Your task to perform on an android device: change notifications settings Image 0: 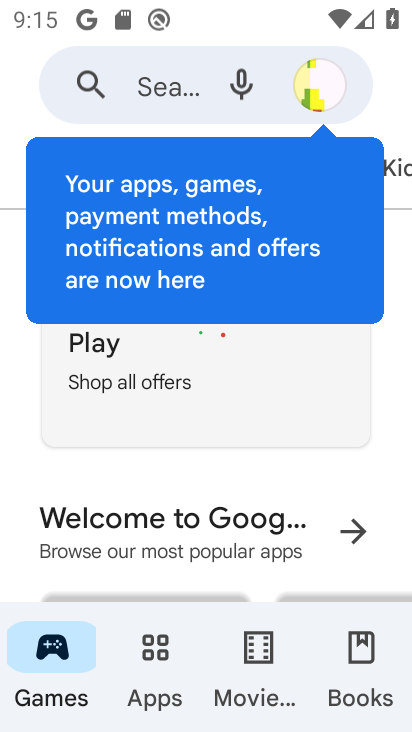
Step 0: press home button
Your task to perform on an android device: change notifications settings Image 1: 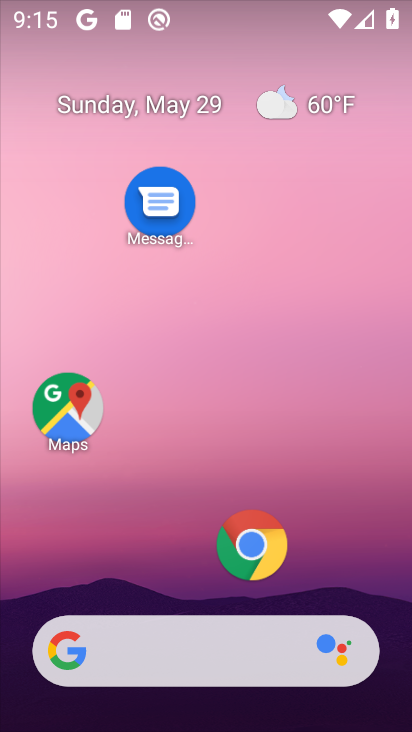
Step 1: drag from (246, 574) to (257, 111)
Your task to perform on an android device: change notifications settings Image 2: 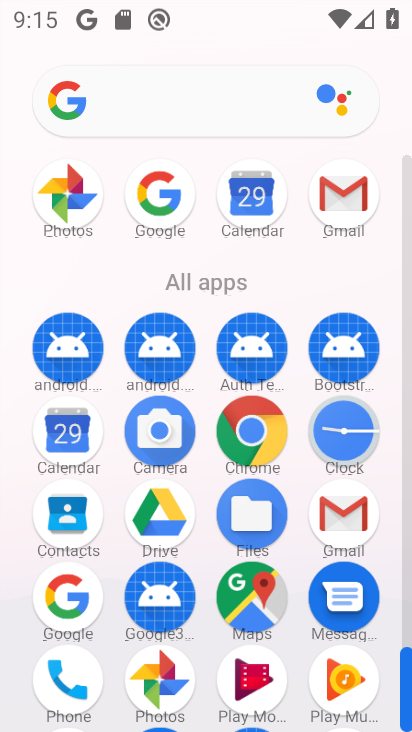
Step 2: drag from (212, 654) to (200, 328)
Your task to perform on an android device: change notifications settings Image 3: 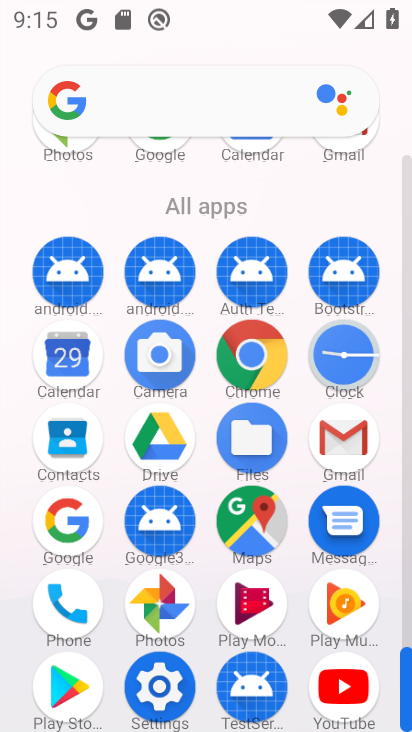
Step 3: click (170, 692)
Your task to perform on an android device: change notifications settings Image 4: 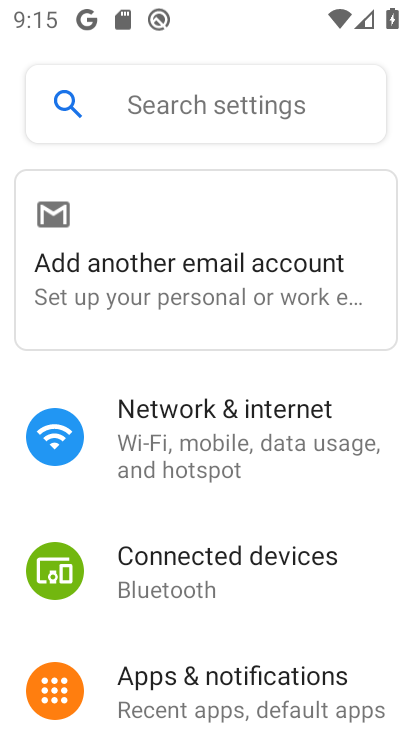
Step 4: click (181, 686)
Your task to perform on an android device: change notifications settings Image 5: 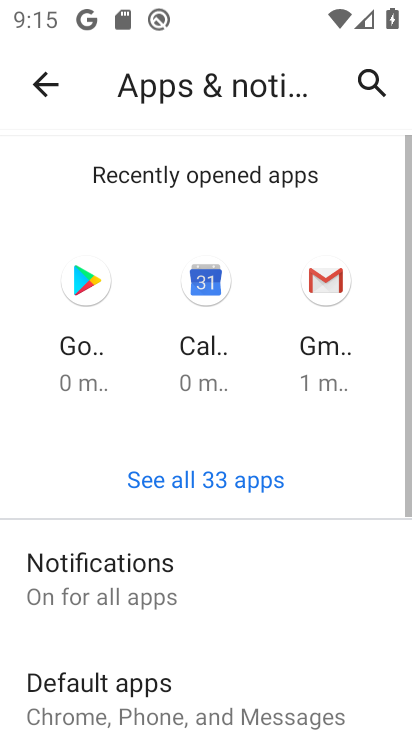
Step 5: click (116, 568)
Your task to perform on an android device: change notifications settings Image 6: 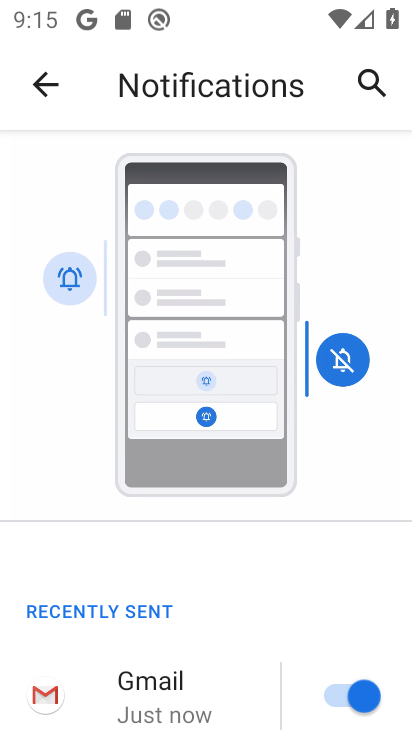
Step 6: drag from (255, 676) to (254, 160)
Your task to perform on an android device: change notifications settings Image 7: 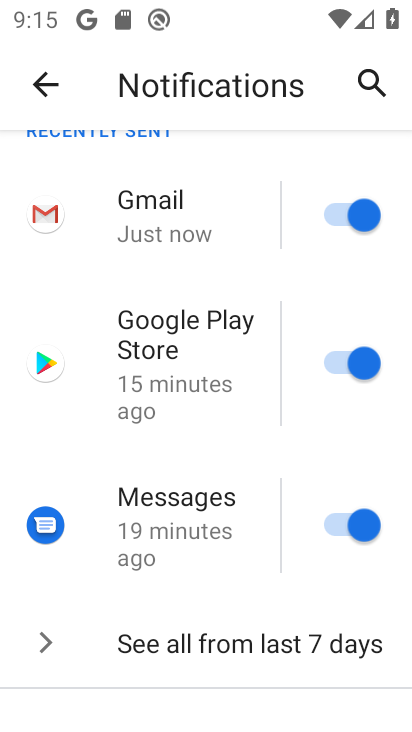
Step 7: click (350, 212)
Your task to perform on an android device: change notifications settings Image 8: 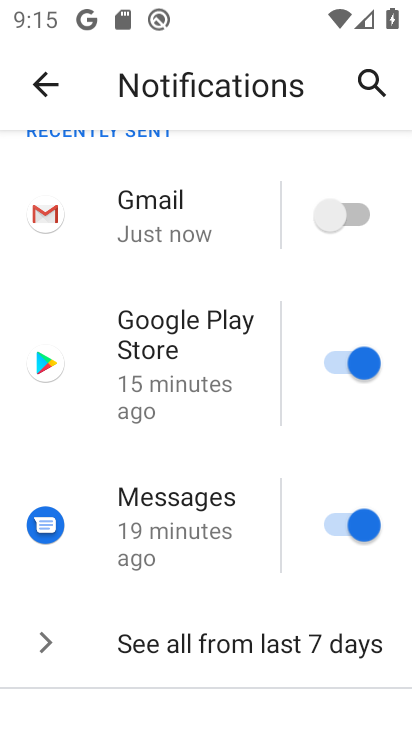
Step 8: click (351, 371)
Your task to perform on an android device: change notifications settings Image 9: 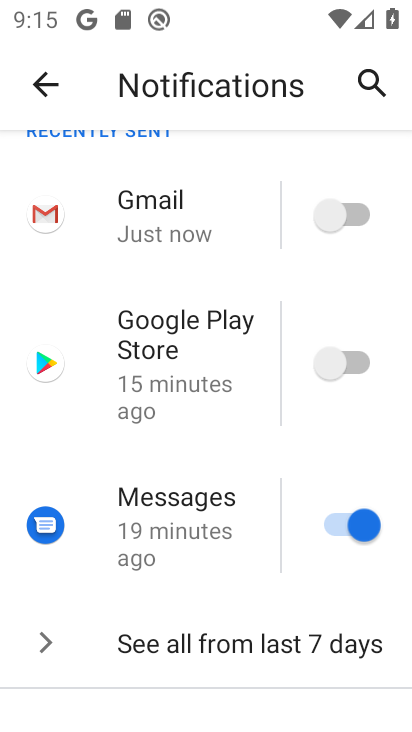
Step 9: click (355, 524)
Your task to perform on an android device: change notifications settings Image 10: 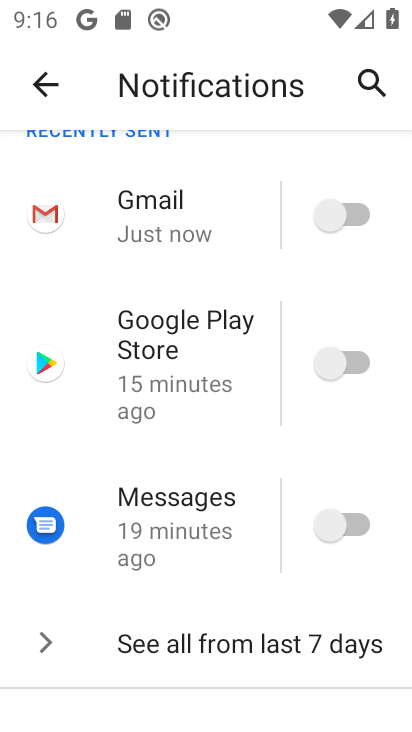
Step 10: click (193, 643)
Your task to perform on an android device: change notifications settings Image 11: 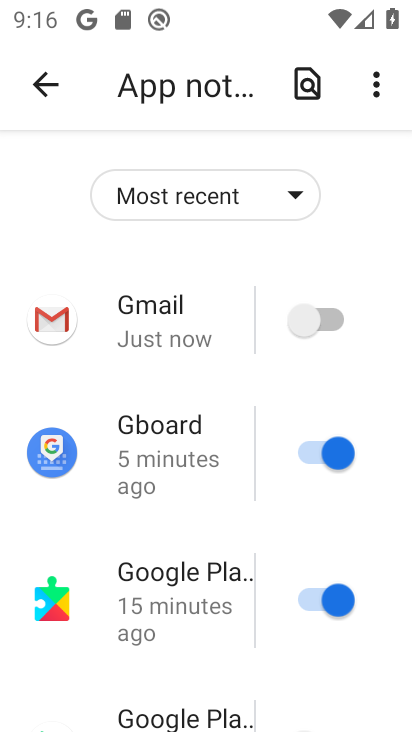
Step 11: click (321, 452)
Your task to perform on an android device: change notifications settings Image 12: 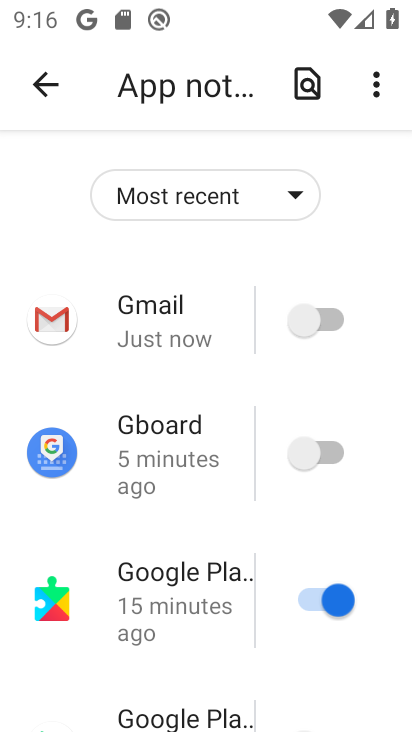
Step 12: click (321, 609)
Your task to perform on an android device: change notifications settings Image 13: 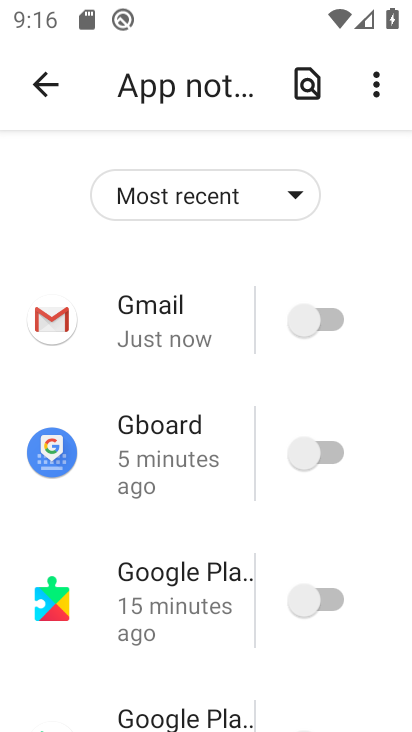
Step 13: drag from (304, 678) to (342, 263)
Your task to perform on an android device: change notifications settings Image 14: 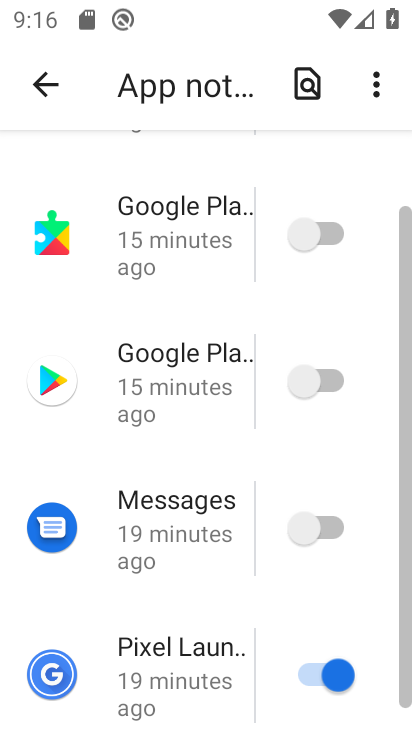
Step 14: click (307, 657)
Your task to perform on an android device: change notifications settings Image 15: 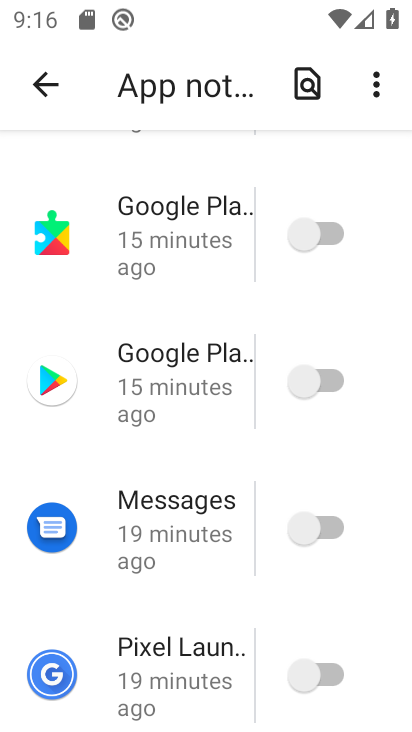
Step 15: drag from (383, 608) to (391, 329)
Your task to perform on an android device: change notifications settings Image 16: 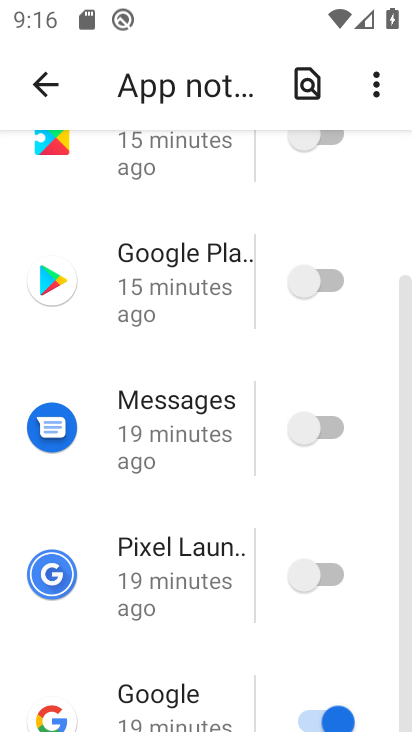
Step 16: click (312, 722)
Your task to perform on an android device: change notifications settings Image 17: 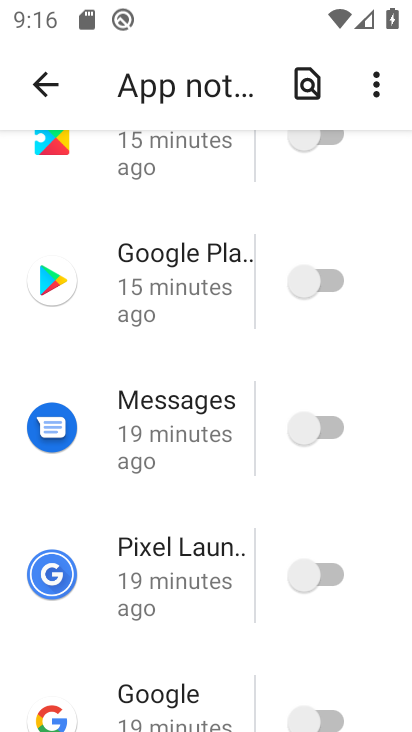
Step 17: task complete